Your task to perform on an android device: turn off data saver in the chrome app Image 0: 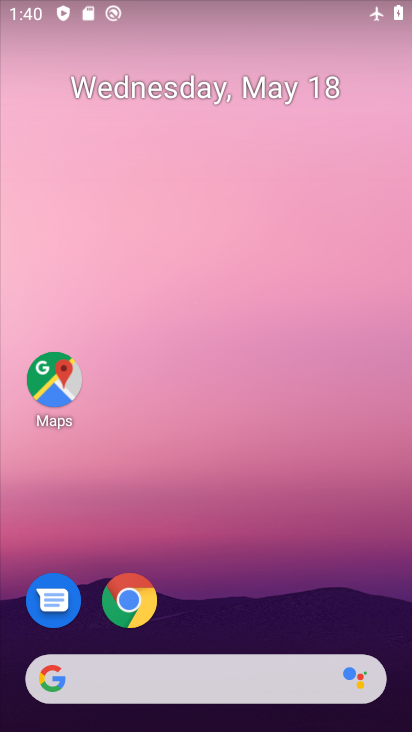
Step 0: click (123, 607)
Your task to perform on an android device: turn off data saver in the chrome app Image 1: 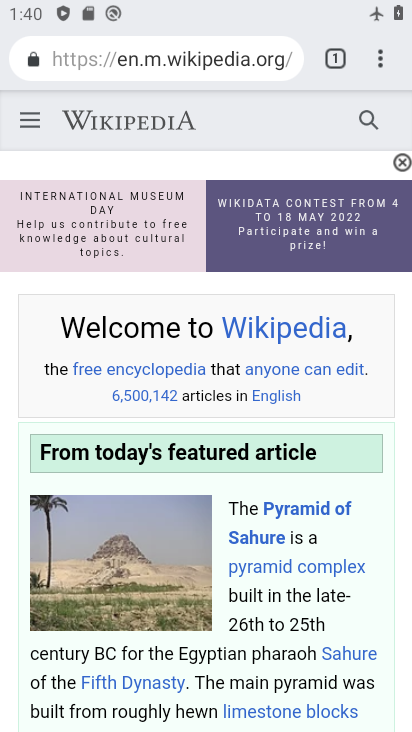
Step 1: click (377, 55)
Your task to perform on an android device: turn off data saver in the chrome app Image 2: 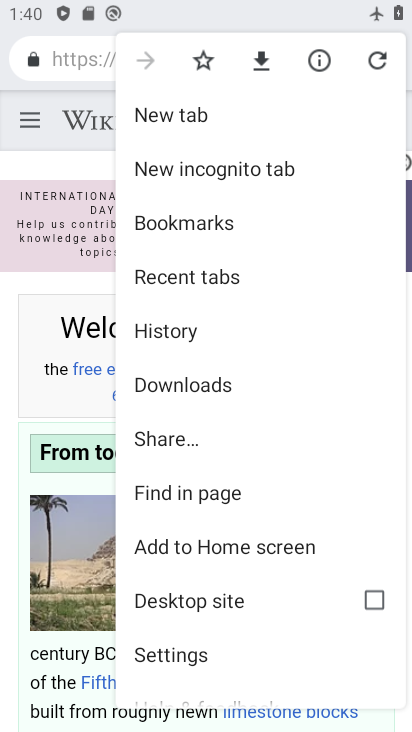
Step 2: click (189, 651)
Your task to perform on an android device: turn off data saver in the chrome app Image 3: 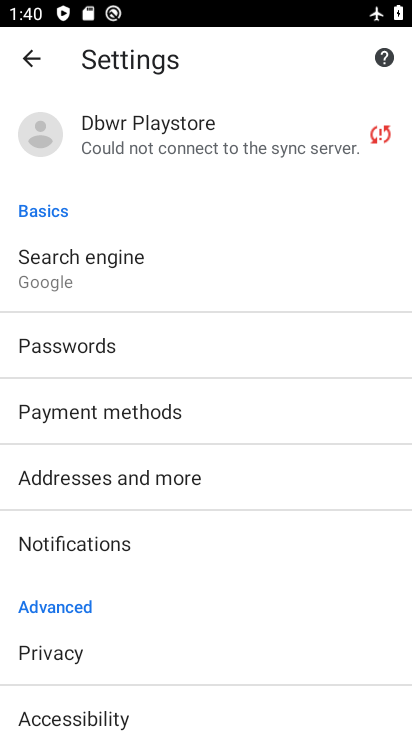
Step 3: drag from (111, 664) to (112, 363)
Your task to perform on an android device: turn off data saver in the chrome app Image 4: 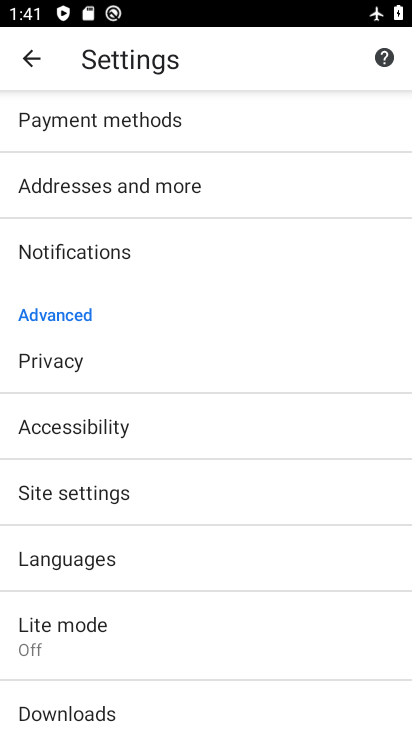
Step 4: click (45, 638)
Your task to perform on an android device: turn off data saver in the chrome app Image 5: 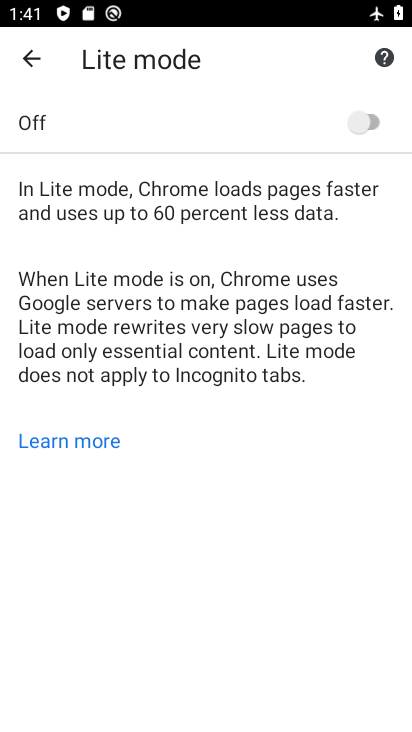
Step 5: task complete